Your task to perform on an android device: Go to ESPN.com Image 0: 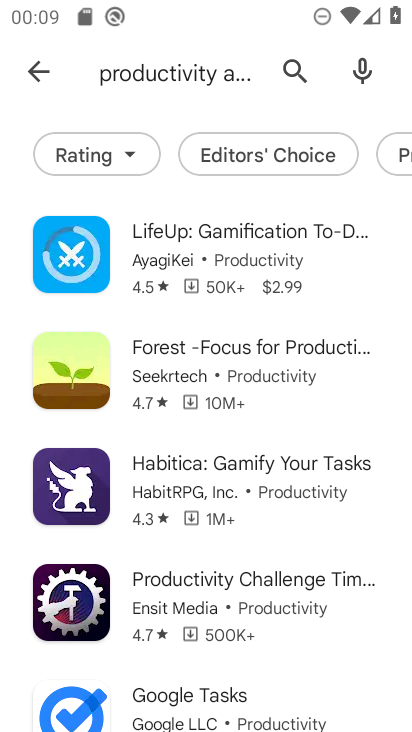
Step 0: press home button
Your task to perform on an android device: Go to ESPN.com Image 1: 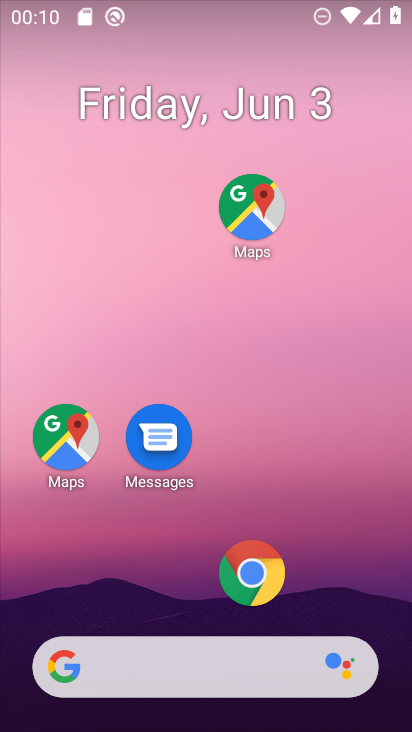
Step 1: click (260, 580)
Your task to perform on an android device: Go to ESPN.com Image 2: 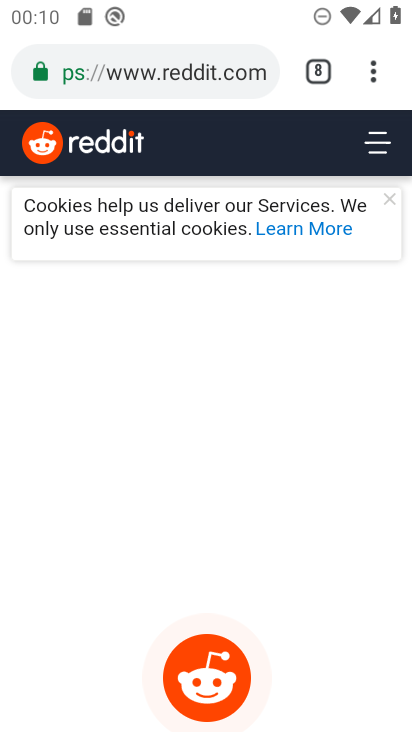
Step 2: click (324, 61)
Your task to perform on an android device: Go to ESPN.com Image 3: 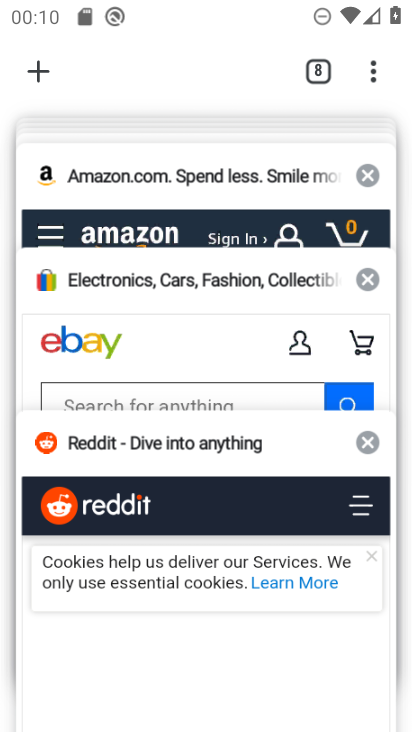
Step 3: drag from (217, 193) to (192, 493)
Your task to perform on an android device: Go to ESPN.com Image 4: 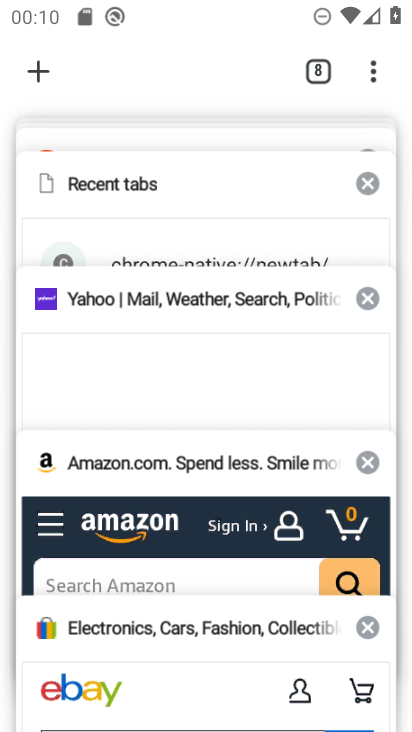
Step 4: drag from (194, 207) to (205, 511)
Your task to perform on an android device: Go to ESPN.com Image 5: 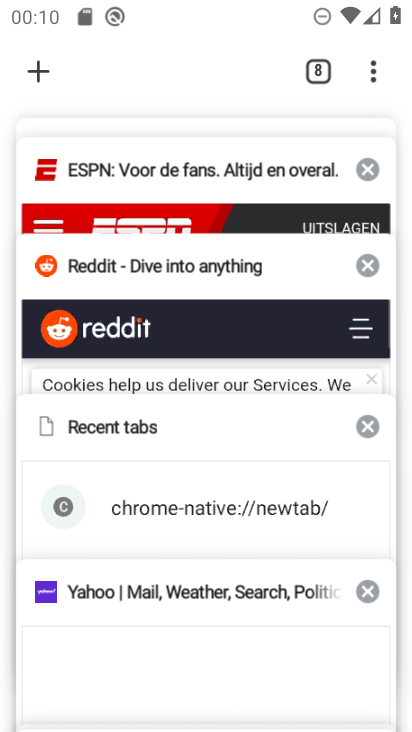
Step 5: click (192, 197)
Your task to perform on an android device: Go to ESPN.com Image 6: 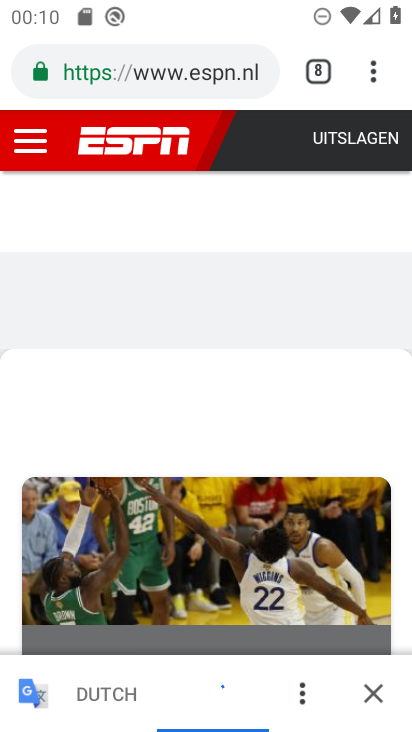
Step 6: task complete